Your task to perform on an android device: turn pop-ups on in chrome Image 0: 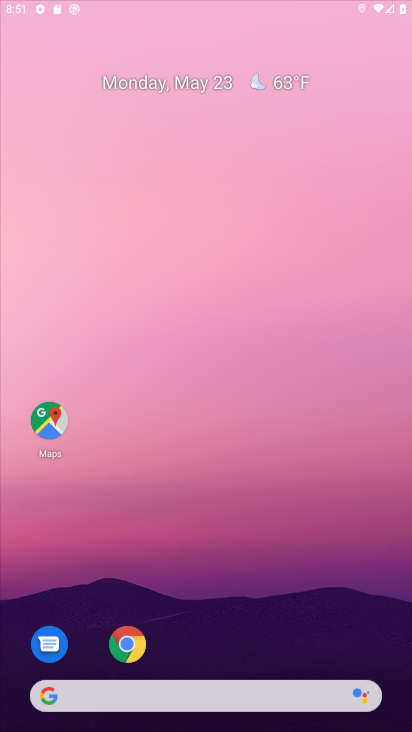
Step 0: press home button
Your task to perform on an android device: turn pop-ups on in chrome Image 1: 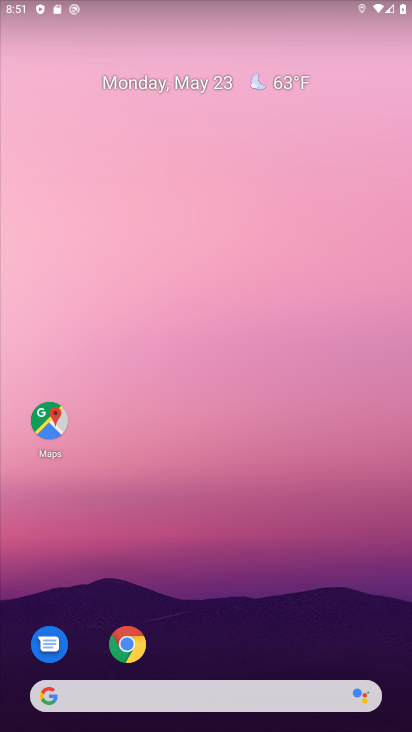
Step 1: click (123, 638)
Your task to perform on an android device: turn pop-ups on in chrome Image 2: 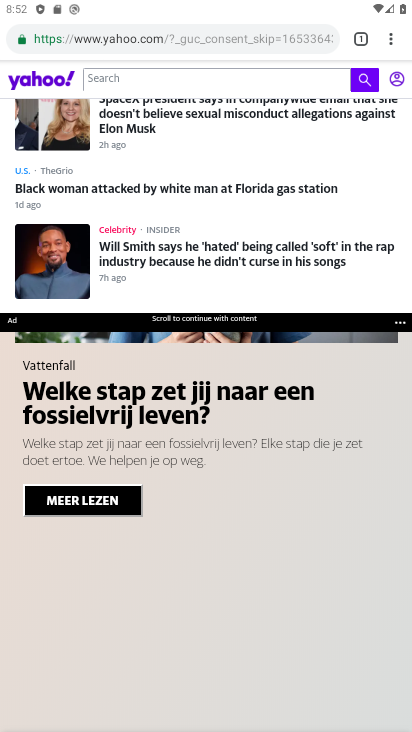
Step 2: click (389, 33)
Your task to perform on an android device: turn pop-ups on in chrome Image 3: 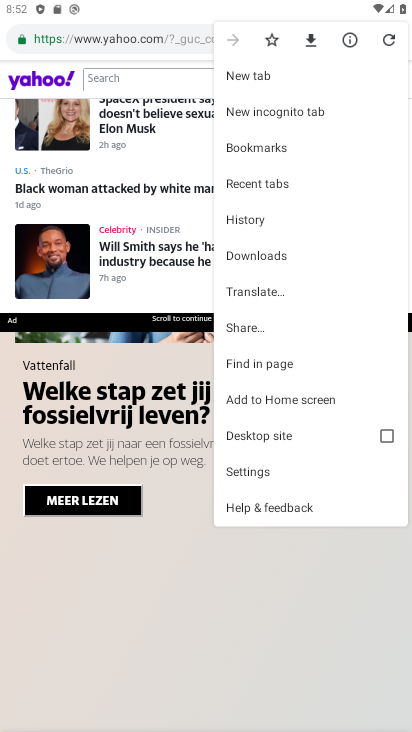
Step 3: click (286, 474)
Your task to perform on an android device: turn pop-ups on in chrome Image 4: 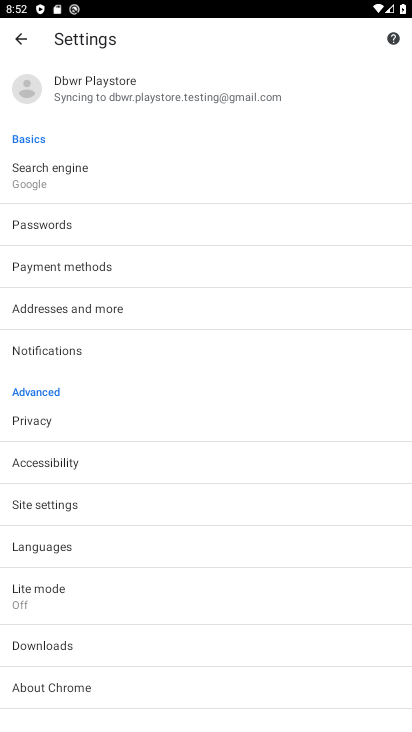
Step 4: click (84, 501)
Your task to perform on an android device: turn pop-ups on in chrome Image 5: 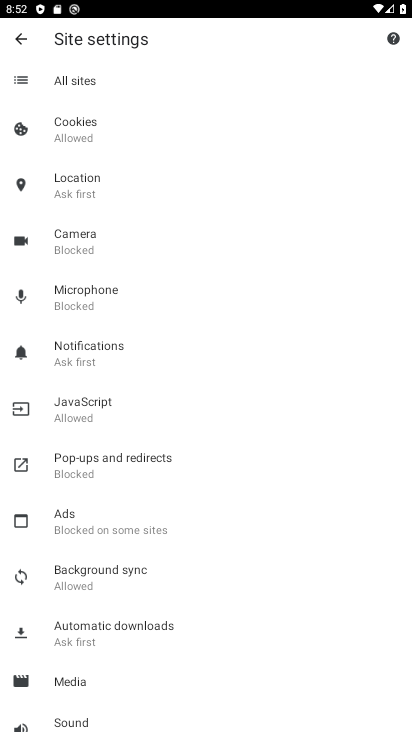
Step 5: click (114, 464)
Your task to perform on an android device: turn pop-ups on in chrome Image 6: 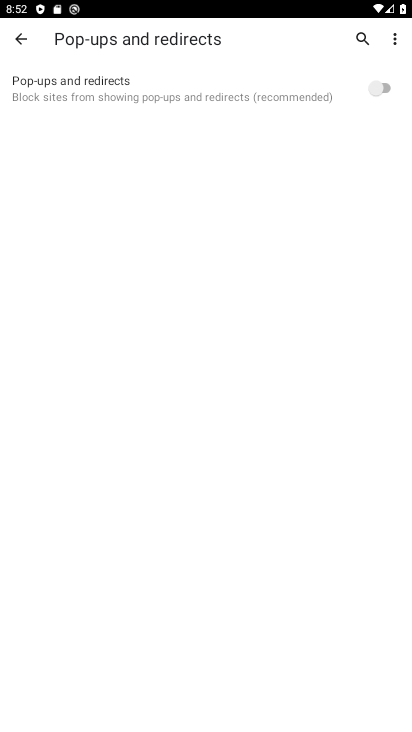
Step 6: click (378, 79)
Your task to perform on an android device: turn pop-ups on in chrome Image 7: 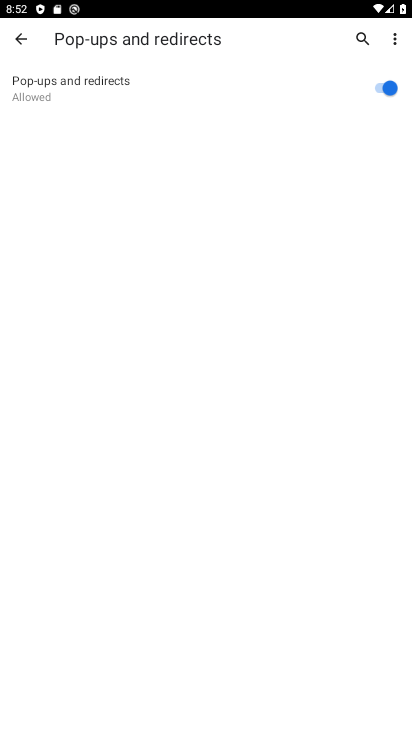
Step 7: task complete